Your task to perform on an android device: turn notification dots on Image 0: 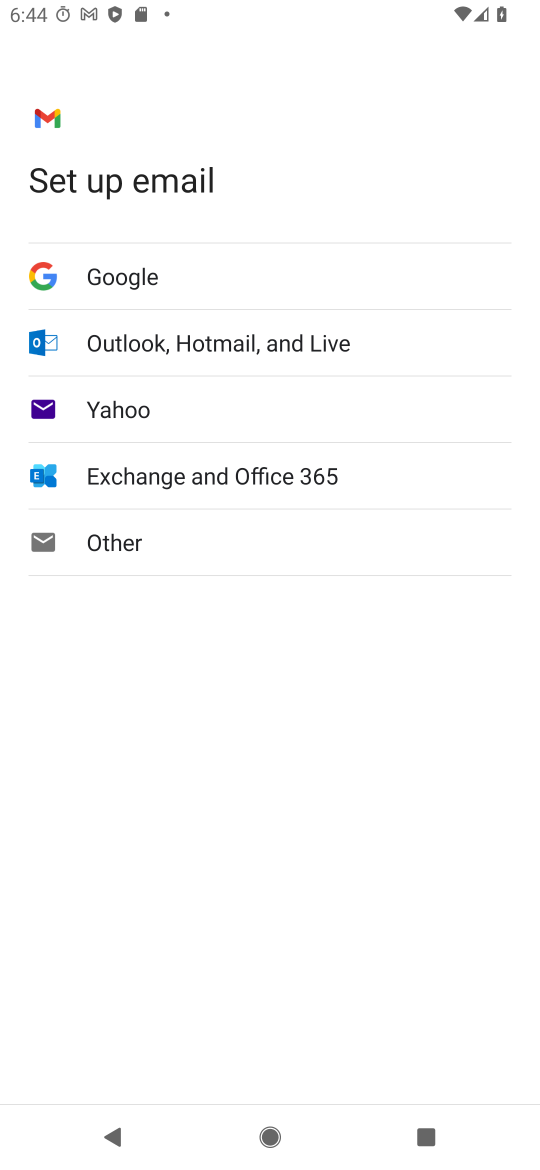
Step 0: press home button
Your task to perform on an android device: turn notification dots on Image 1: 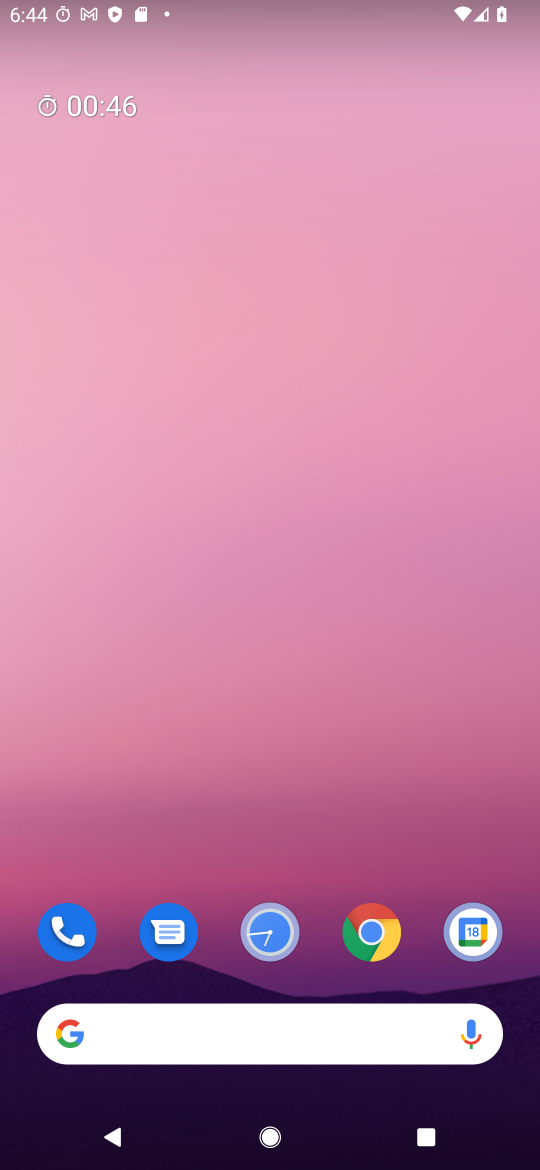
Step 1: drag from (413, 950) to (370, 70)
Your task to perform on an android device: turn notification dots on Image 2: 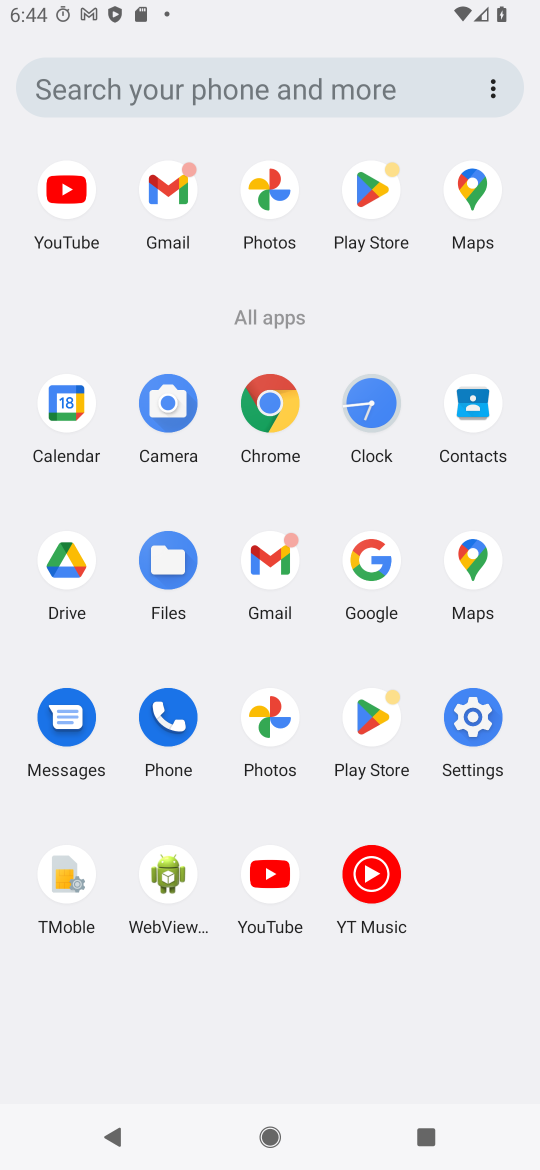
Step 2: click (478, 720)
Your task to perform on an android device: turn notification dots on Image 3: 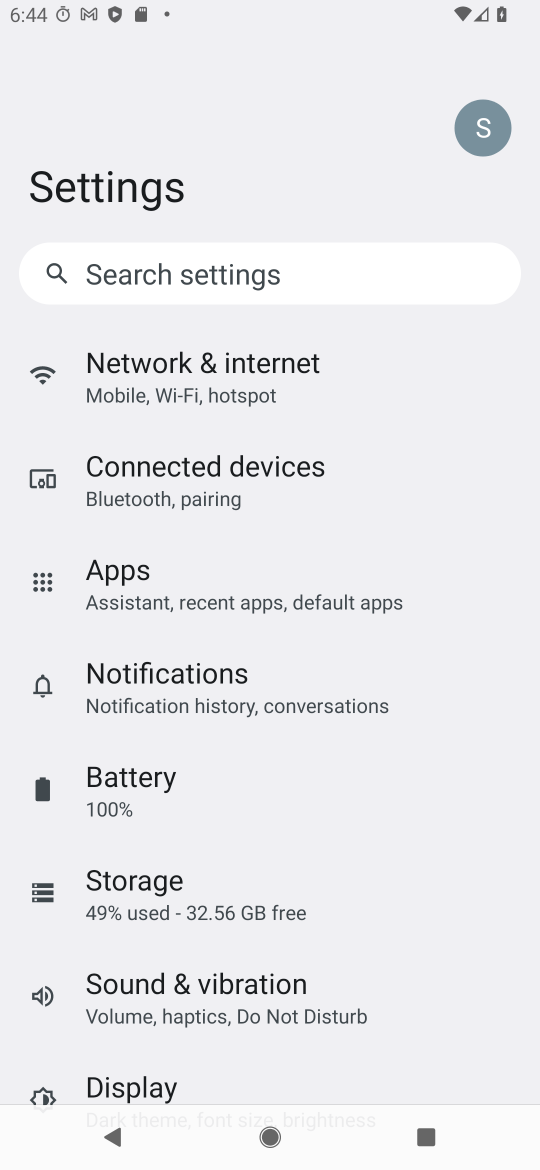
Step 3: drag from (316, 1013) to (305, 470)
Your task to perform on an android device: turn notification dots on Image 4: 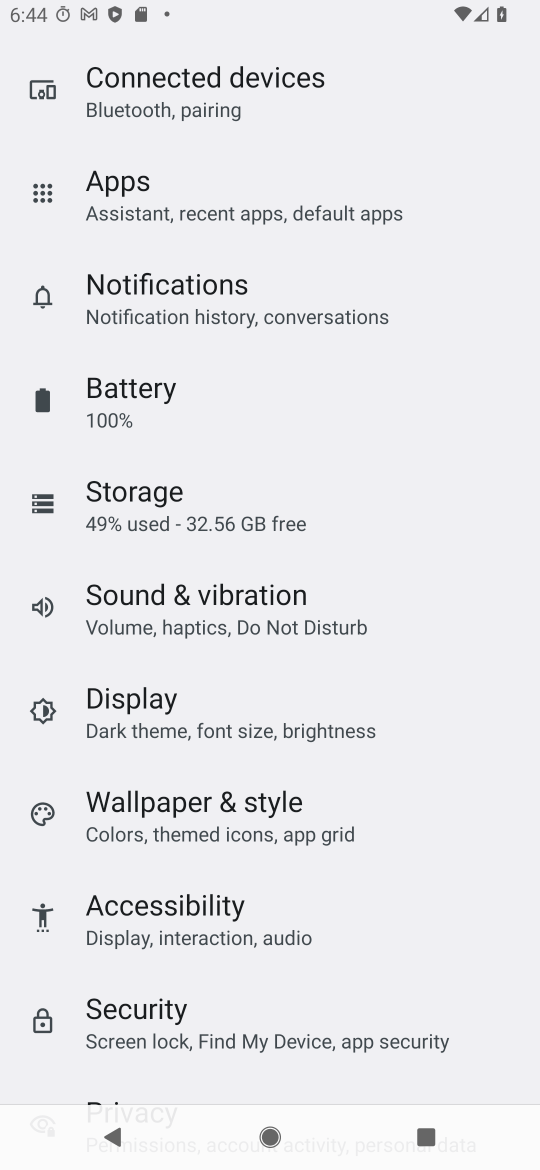
Step 4: click (201, 286)
Your task to perform on an android device: turn notification dots on Image 5: 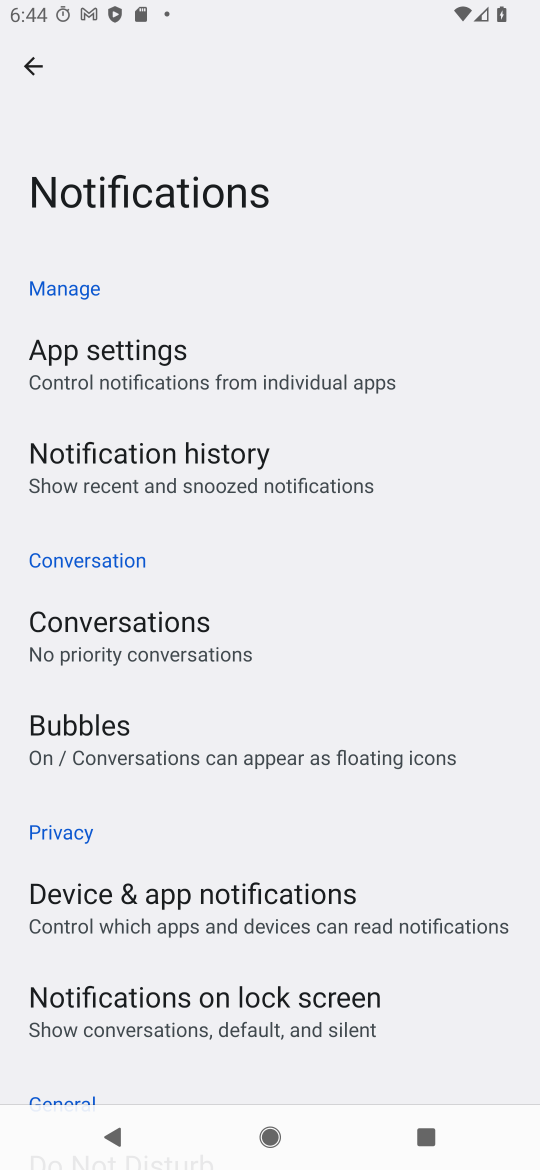
Step 5: drag from (240, 989) to (263, 435)
Your task to perform on an android device: turn notification dots on Image 6: 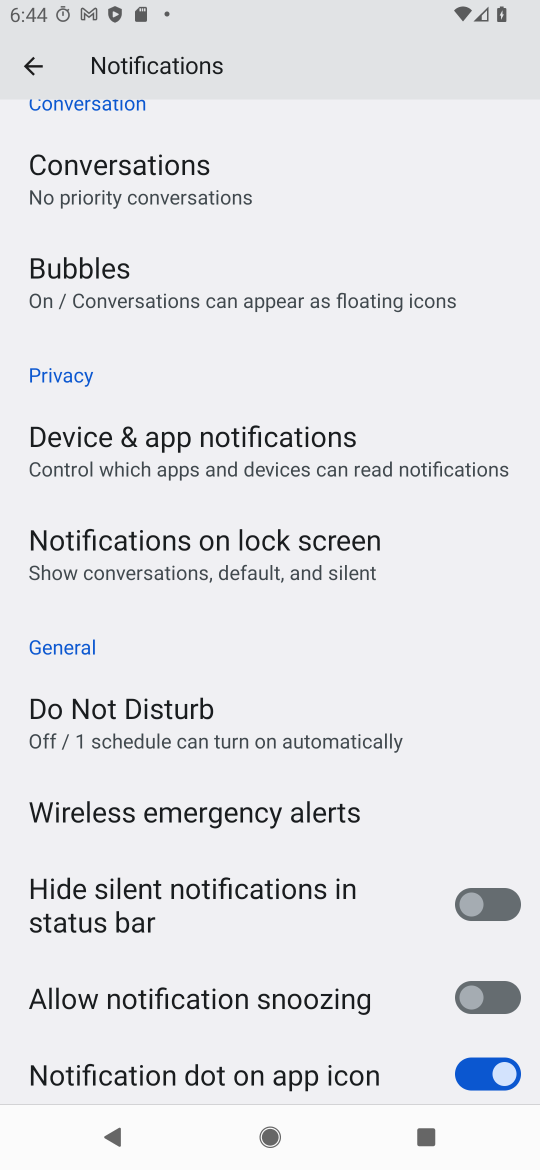
Step 6: drag from (337, 1067) to (368, 582)
Your task to perform on an android device: turn notification dots on Image 7: 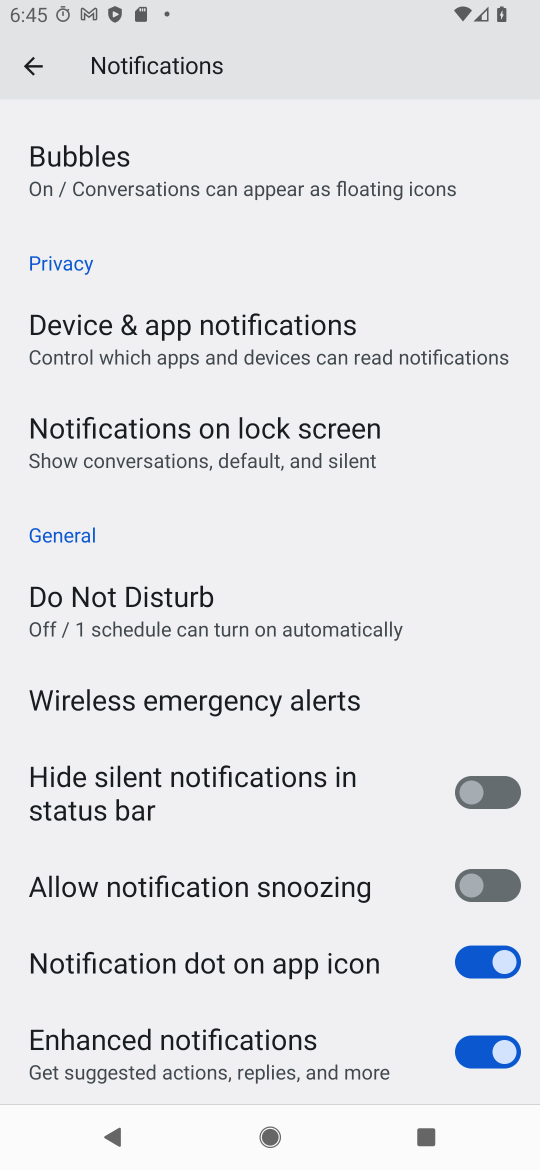
Step 7: click (482, 954)
Your task to perform on an android device: turn notification dots on Image 8: 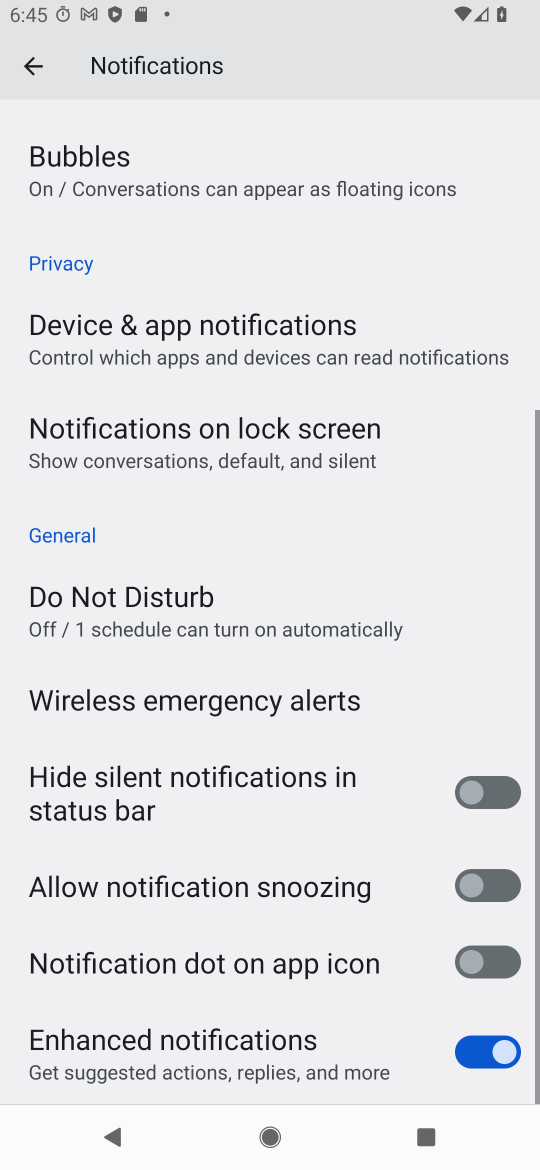
Step 8: click (482, 954)
Your task to perform on an android device: turn notification dots on Image 9: 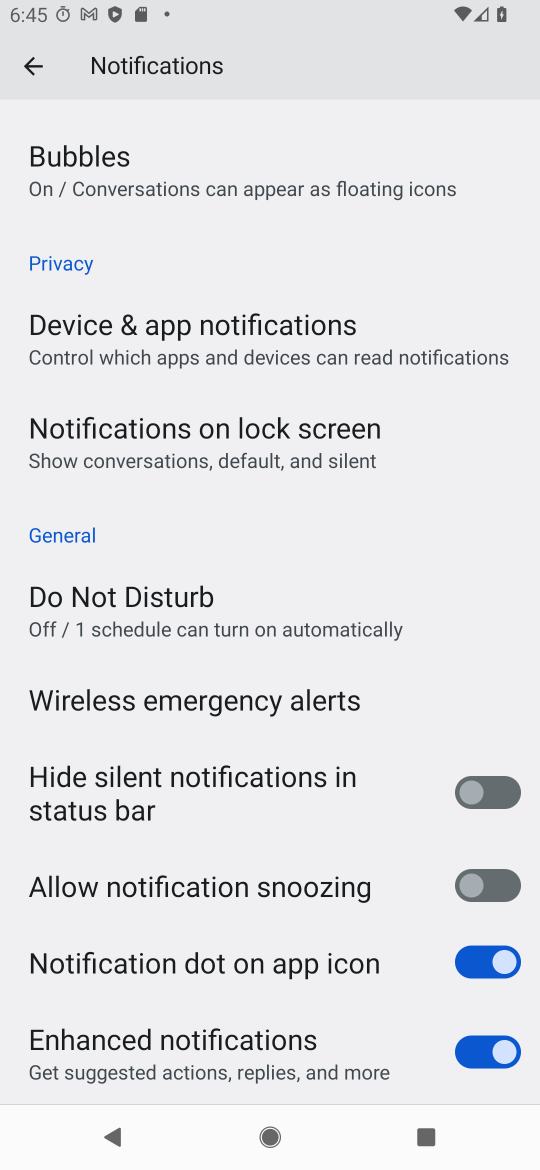
Step 9: task complete